Your task to perform on an android device: Open the web browser Image 0: 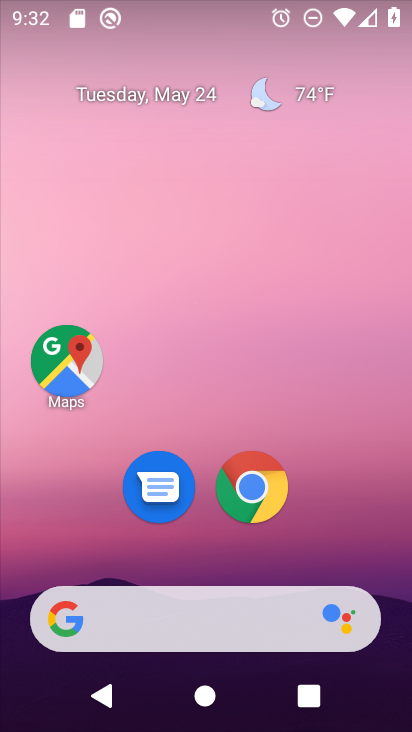
Step 0: drag from (352, 576) to (370, 609)
Your task to perform on an android device: Open the web browser Image 1: 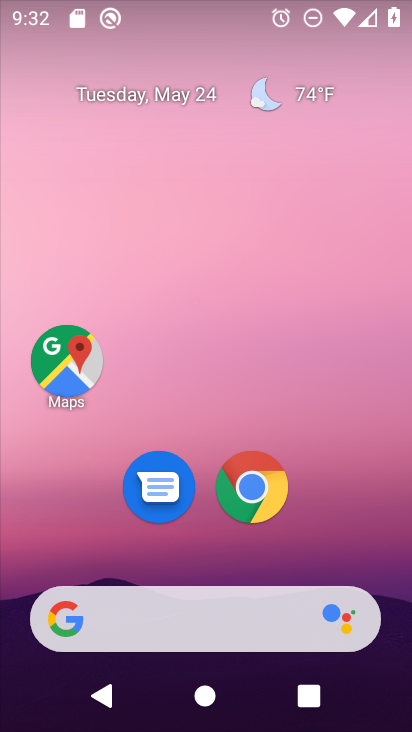
Step 1: click (261, 489)
Your task to perform on an android device: Open the web browser Image 2: 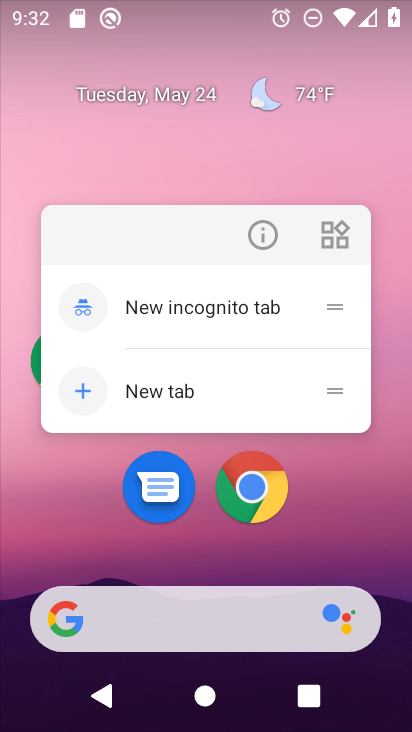
Step 2: click (249, 496)
Your task to perform on an android device: Open the web browser Image 3: 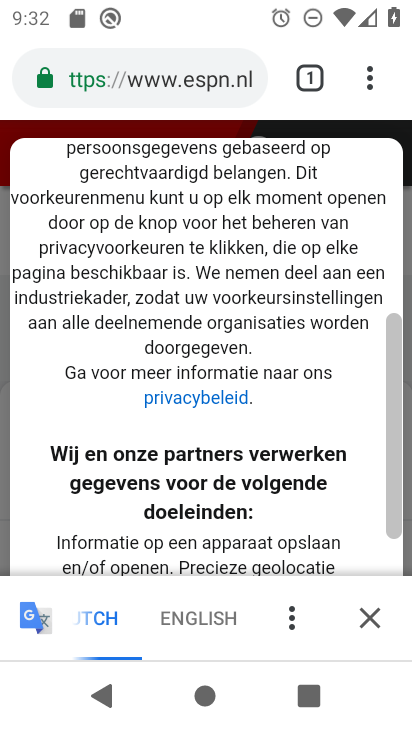
Step 3: task complete